Your task to perform on an android device: add a contact in the contacts app Image 0: 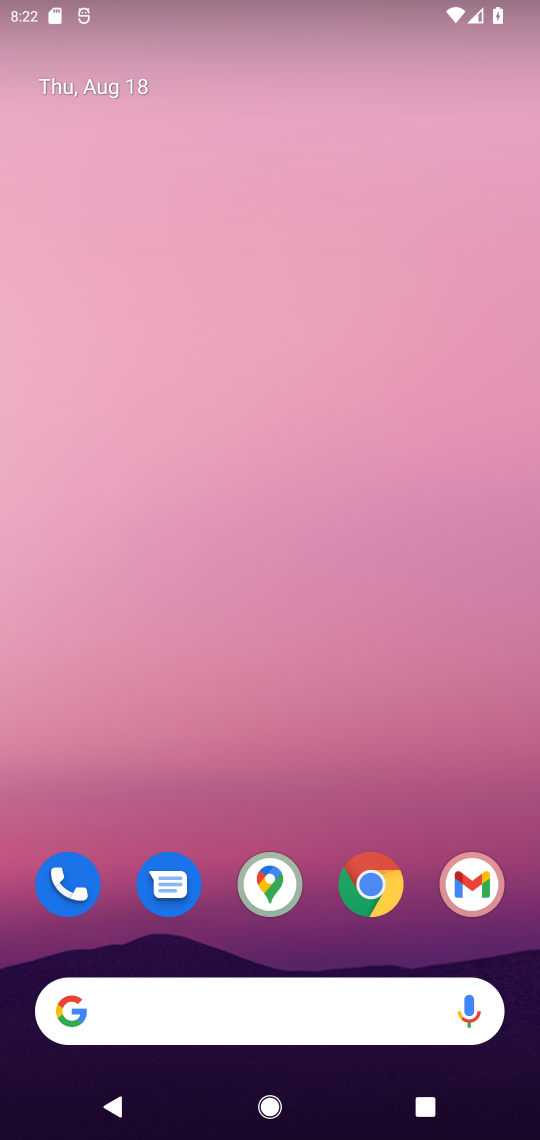
Step 0: click (75, 874)
Your task to perform on an android device: add a contact in the contacts app Image 1: 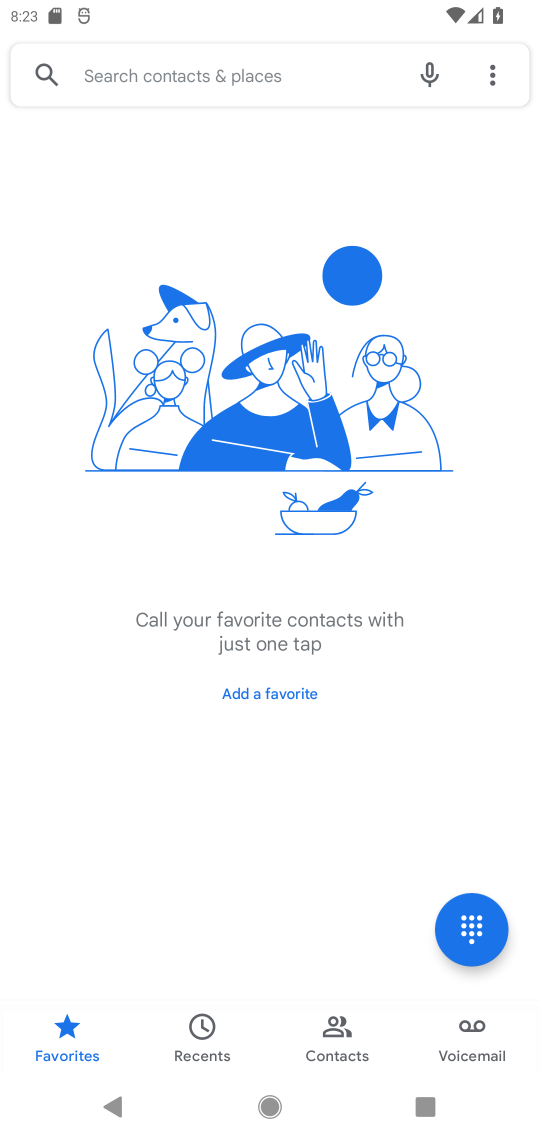
Step 1: click (311, 1027)
Your task to perform on an android device: add a contact in the contacts app Image 2: 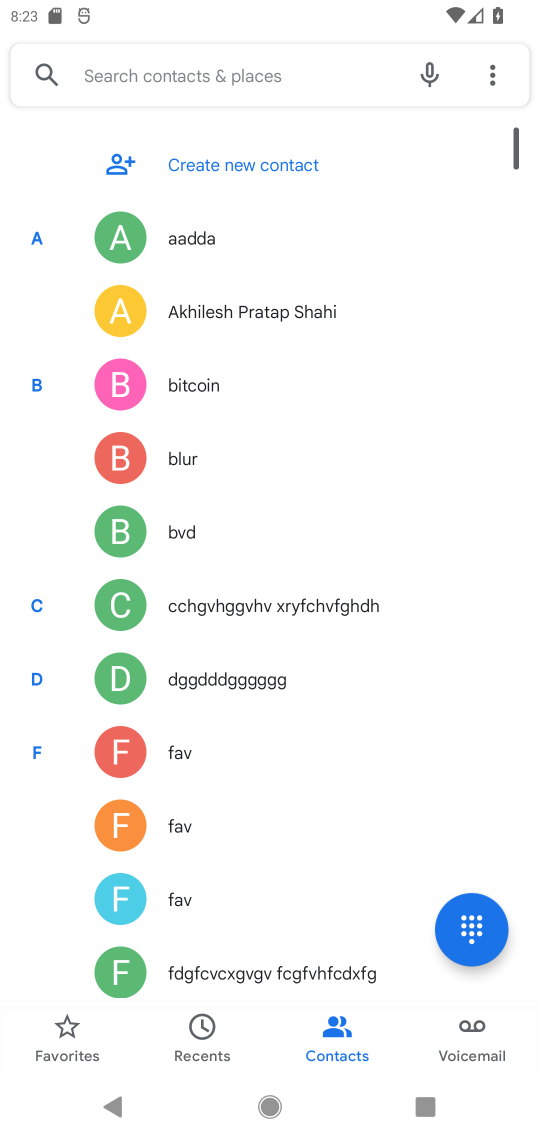
Step 2: click (341, 152)
Your task to perform on an android device: add a contact in the contacts app Image 3: 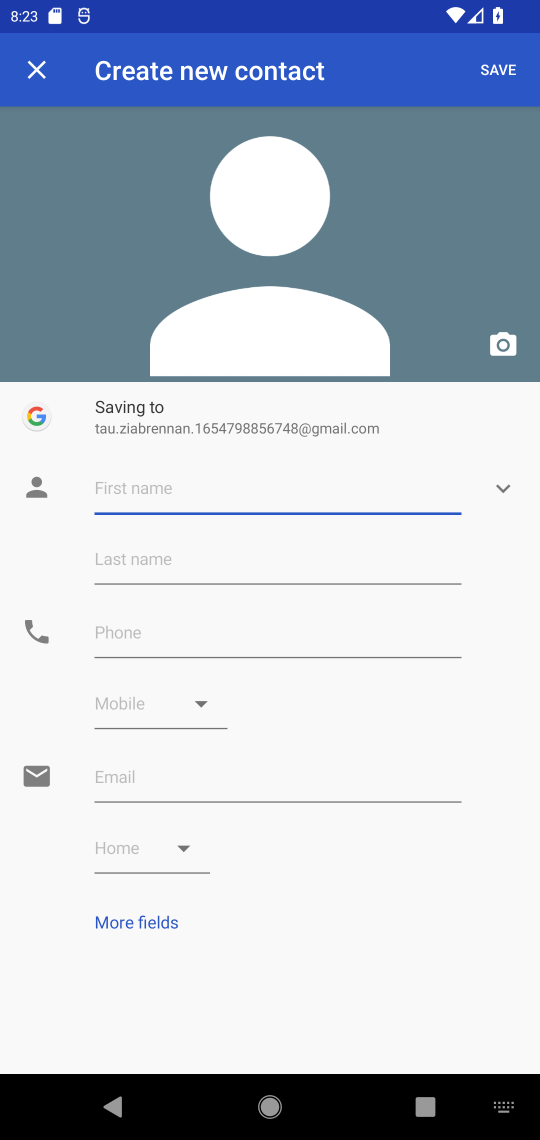
Step 3: type "poijhgvc"
Your task to perform on an android device: add a contact in the contacts app Image 4: 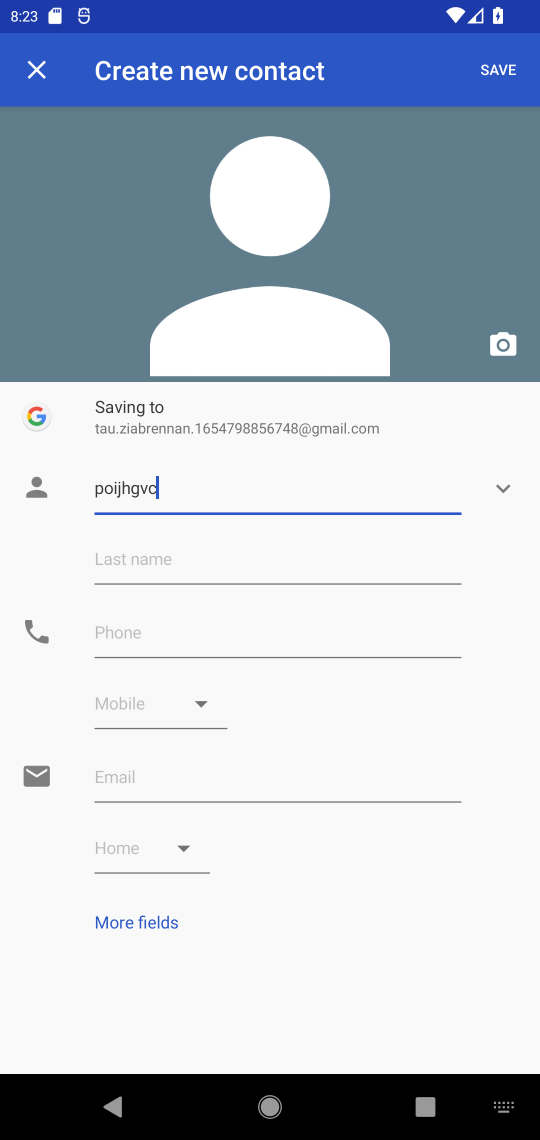
Step 4: click (180, 614)
Your task to perform on an android device: add a contact in the contacts app Image 5: 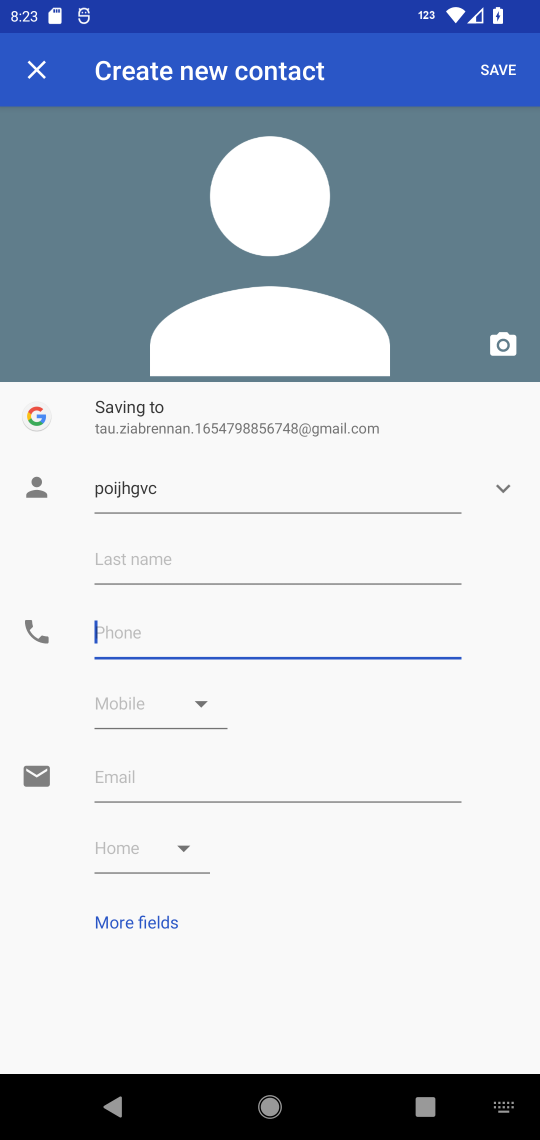
Step 5: type "9876543456"
Your task to perform on an android device: add a contact in the contacts app Image 6: 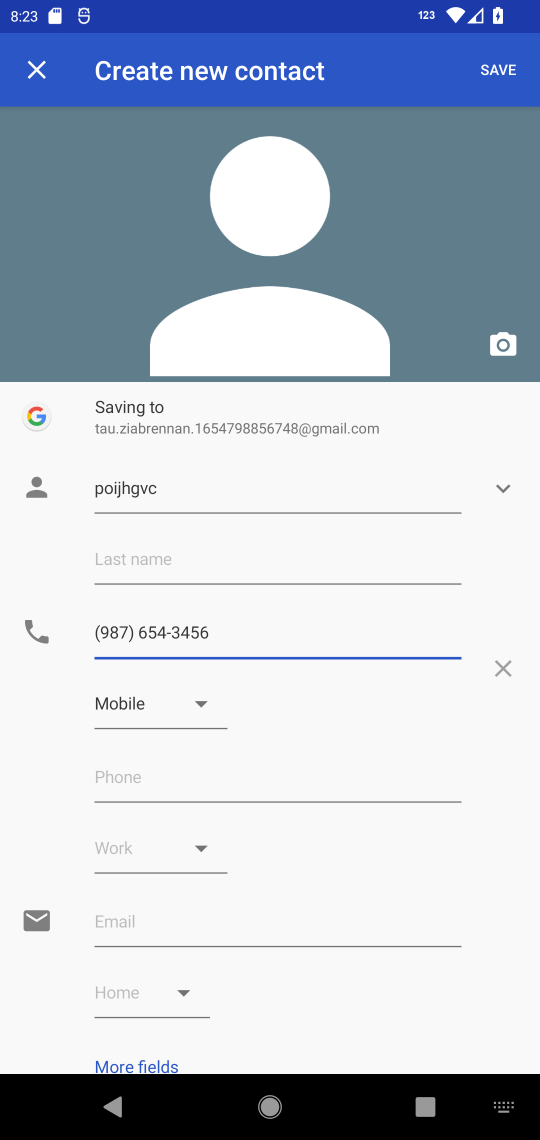
Step 6: click (494, 82)
Your task to perform on an android device: add a contact in the contacts app Image 7: 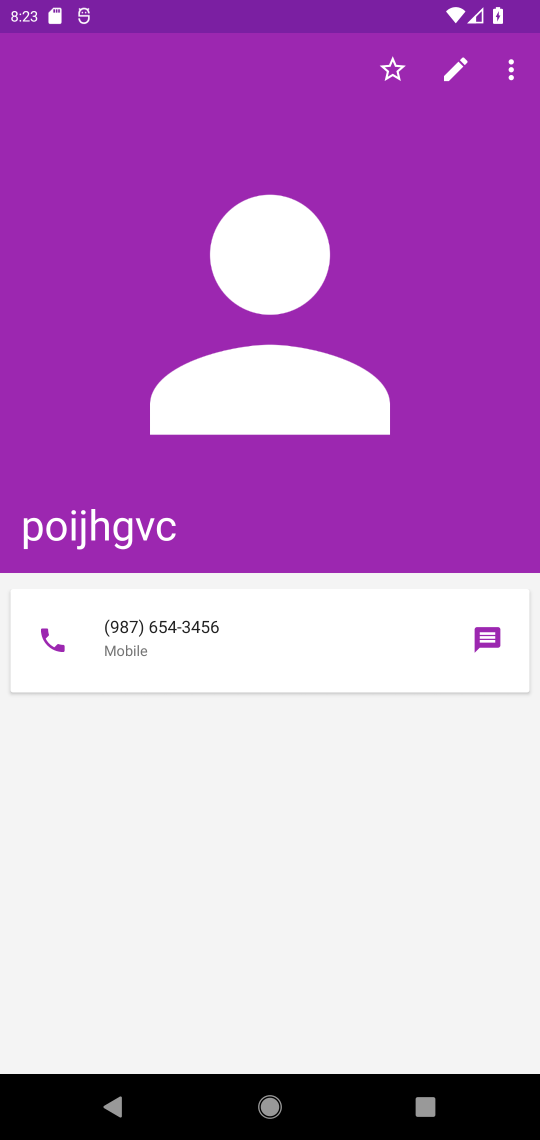
Step 7: task complete